Your task to perform on an android device: check battery use Image 0: 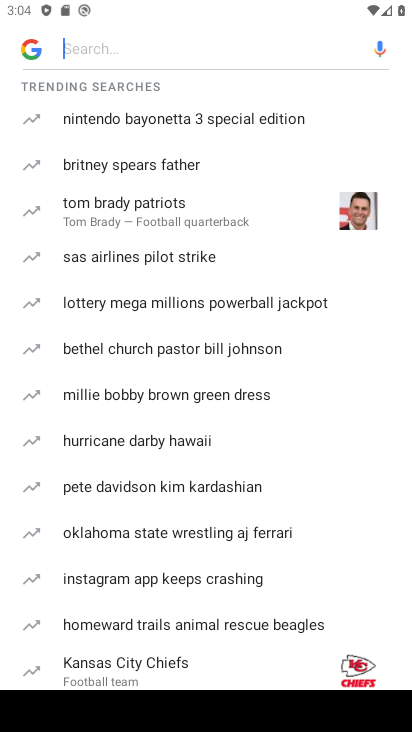
Step 0: press home button
Your task to perform on an android device: check battery use Image 1: 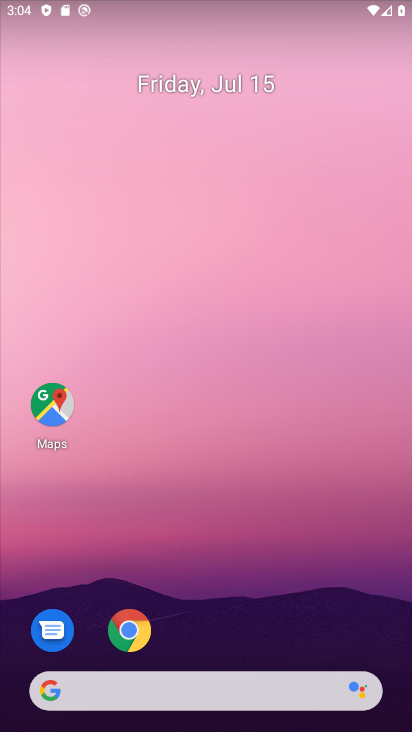
Step 1: drag from (197, 692) to (288, 214)
Your task to perform on an android device: check battery use Image 2: 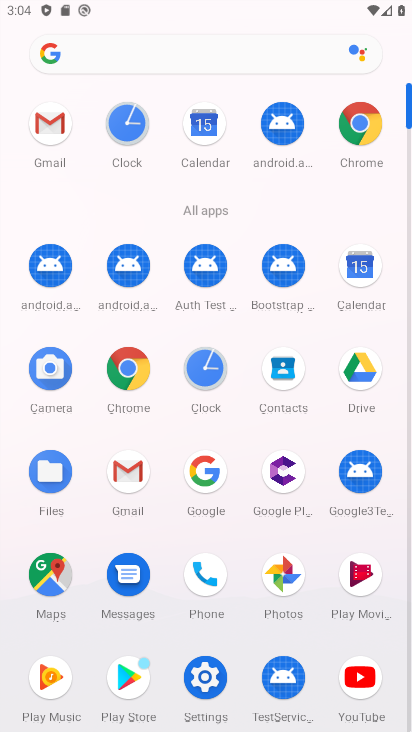
Step 2: click (204, 658)
Your task to perform on an android device: check battery use Image 3: 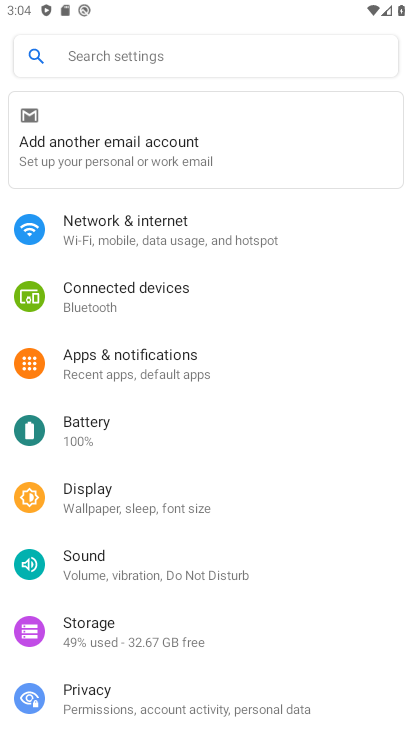
Step 3: click (131, 430)
Your task to perform on an android device: check battery use Image 4: 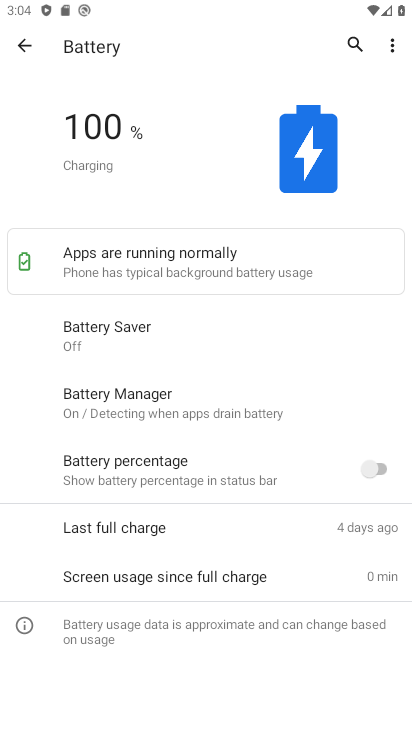
Step 4: task complete